Your task to perform on an android device: Search for alienware aurora on costco, select the first entry, add it to the cart, then select checkout. Image 0: 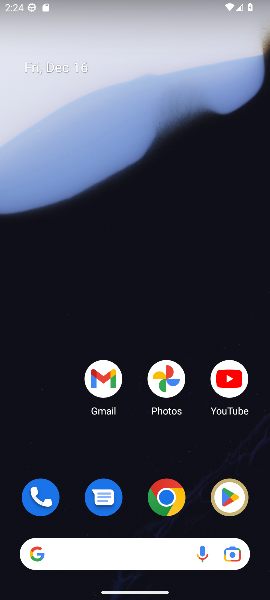
Step 0: click (169, 503)
Your task to perform on an android device: Search for alienware aurora on costco, select the first entry, add it to the cart, then select checkout. Image 1: 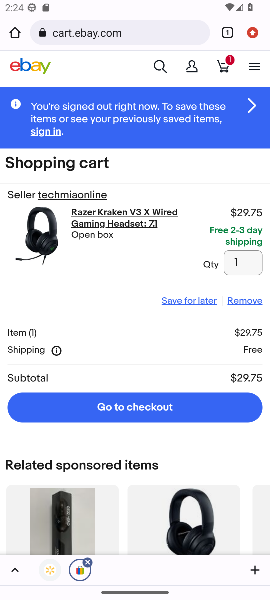
Step 1: click (117, 38)
Your task to perform on an android device: Search for alienware aurora on costco, select the first entry, add it to the cart, then select checkout. Image 2: 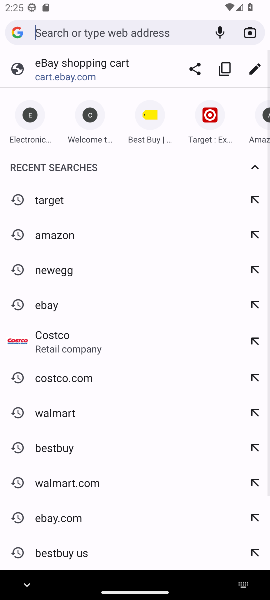
Step 2: click (66, 348)
Your task to perform on an android device: Search for alienware aurora on costco, select the first entry, add it to the cart, then select checkout. Image 3: 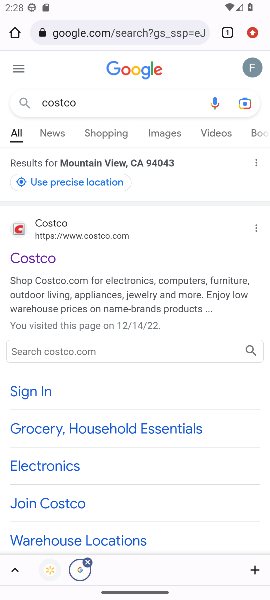
Step 3: task complete